Your task to perform on an android device: Show me recent news Image 0: 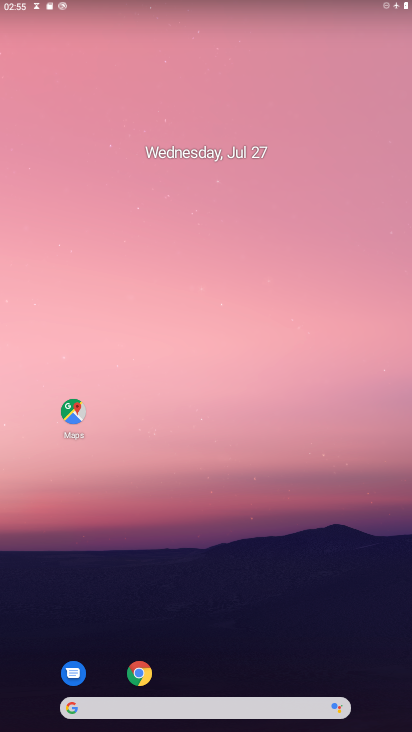
Step 0: drag from (255, 668) to (244, 298)
Your task to perform on an android device: Show me recent news Image 1: 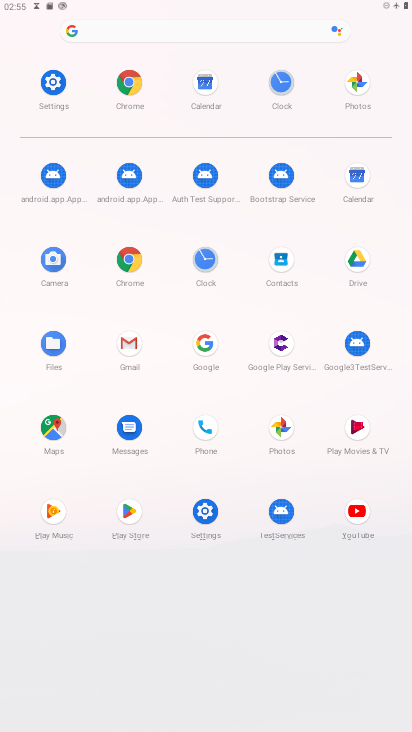
Step 1: click (122, 80)
Your task to perform on an android device: Show me recent news Image 2: 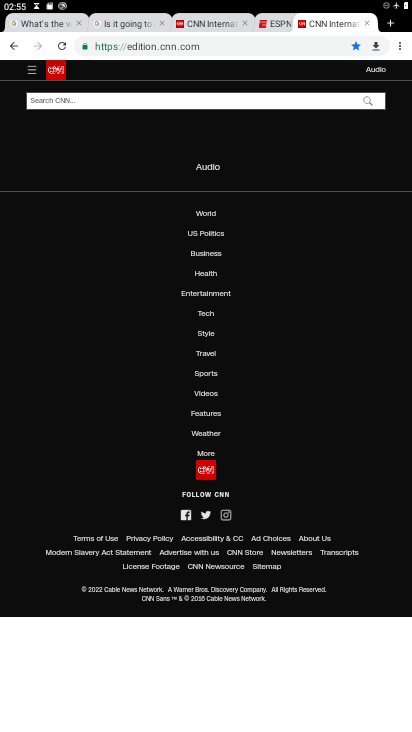
Step 2: click (397, 24)
Your task to perform on an android device: Show me recent news Image 3: 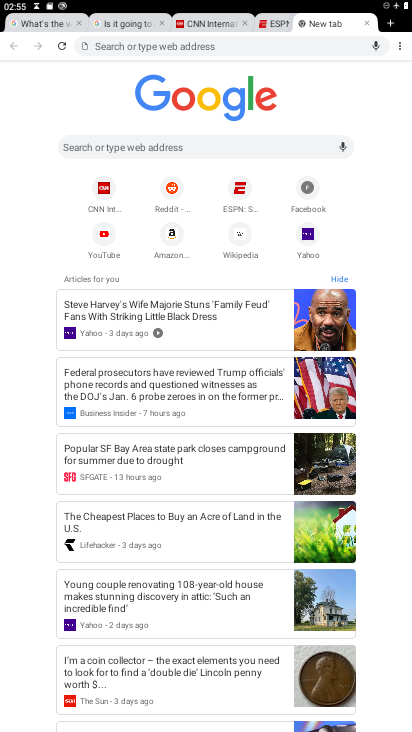
Step 3: click (227, 136)
Your task to perform on an android device: Show me recent news Image 4: 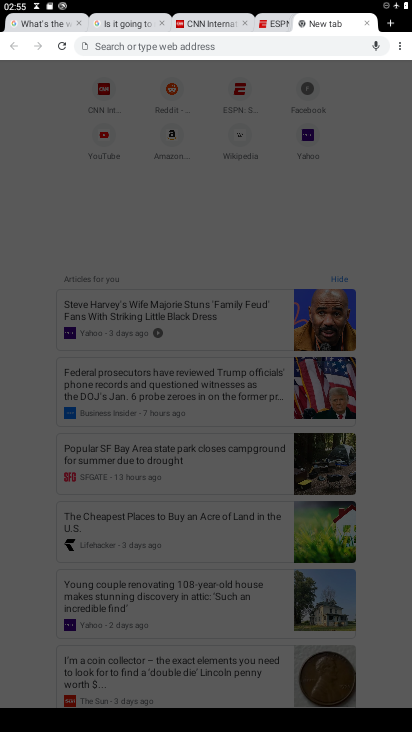
Step 4: type "Show me recent news "
Your task to perform on an android device: Show me recent news Image 5: 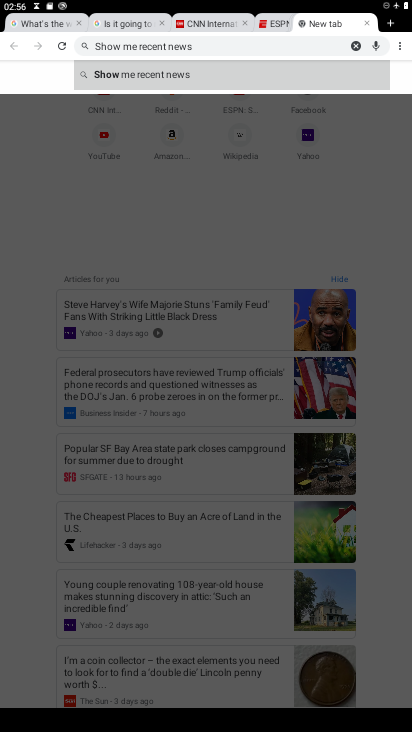
Step 5: click (268, 65)
Your task to perform on an android device: Show me recent news Image 6: 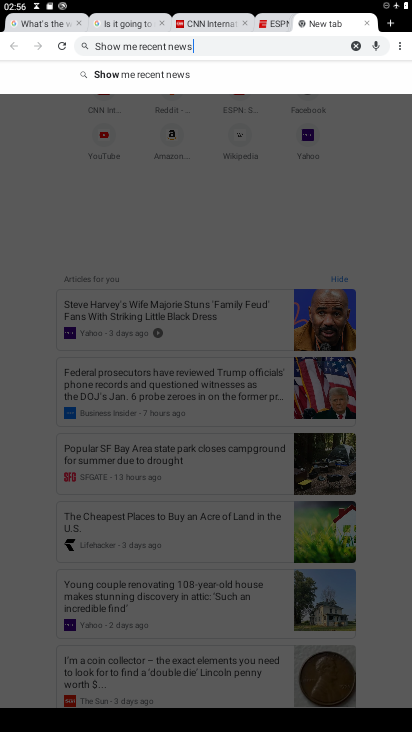
Step 6: click (179, 76)
Your task to perform on an android device: Show me recent news Image 7: 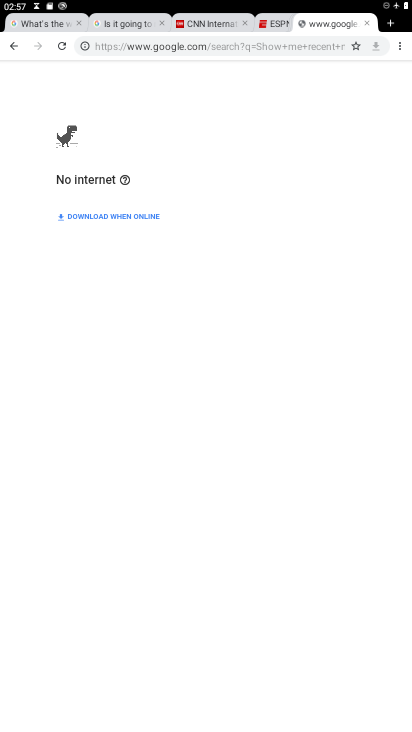
Step 7: task complete